Your task to perform on an android device: open chrome and create a bookmark for the current page Image 0: 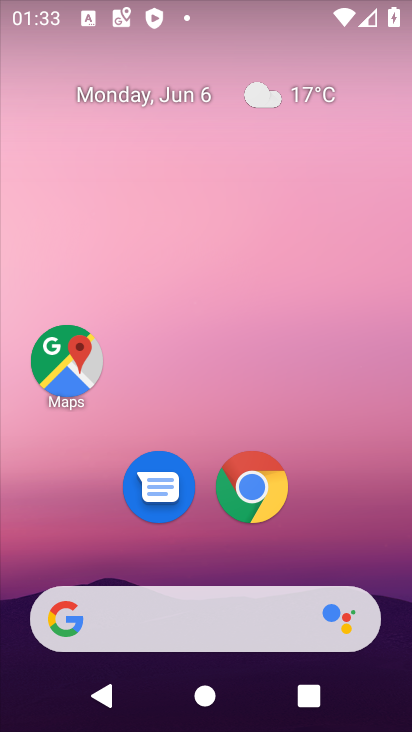
Step 0: click (251, 498)
Your task to perform on an android device: open chrome and create a bookmark for the current page Image 1: 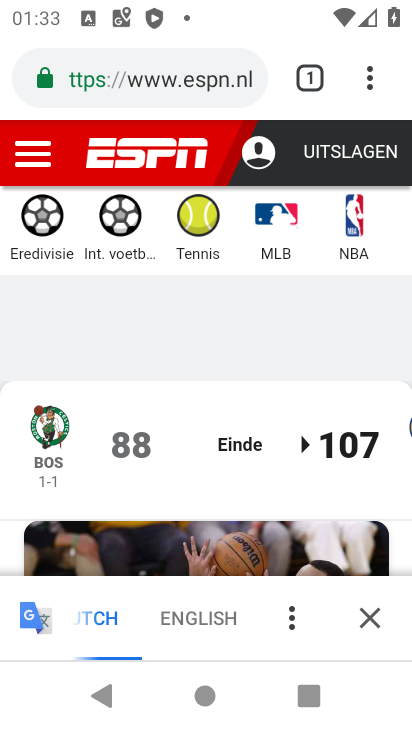
Step 1: click (362, 77)
Your task to perform on an android device: open chrome and create a bookmark for the current page Image 2: 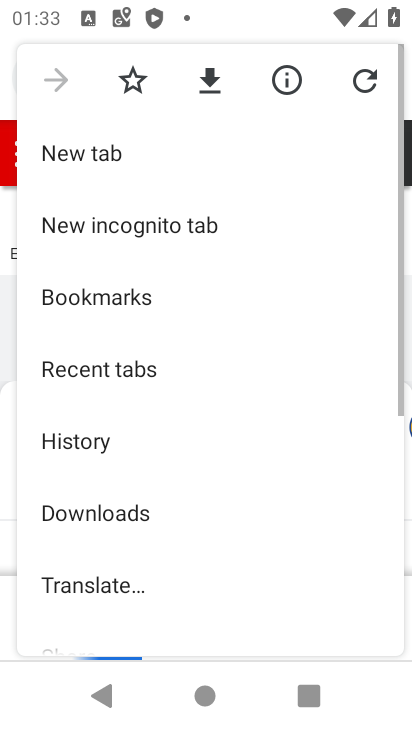
Step 2: click (125, 86)
Your task to perform on an android device: open chrome and create a bookmark for the current page Image 3: 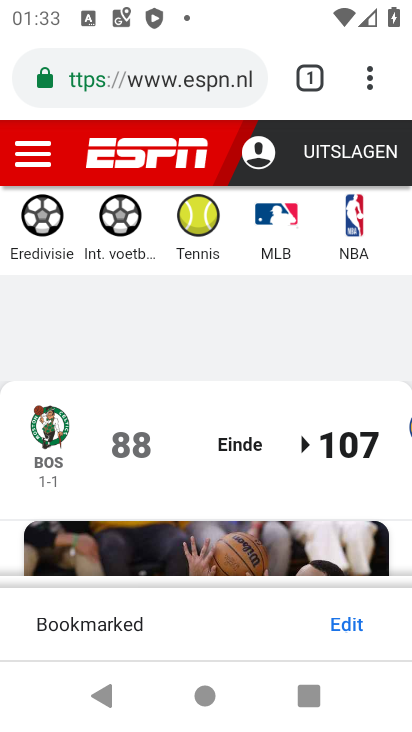
Step 3: task complete